Your task to perform on an android device: Go to battery settings Image 0: 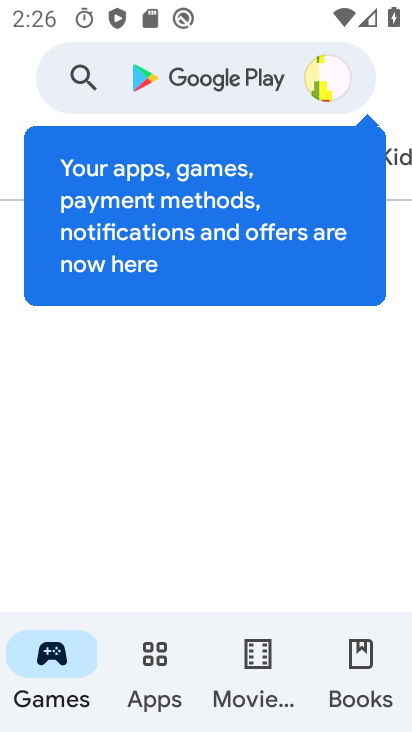
Step 0: press back button
Your task to perform on an android device: Go to battery settings Image 1: 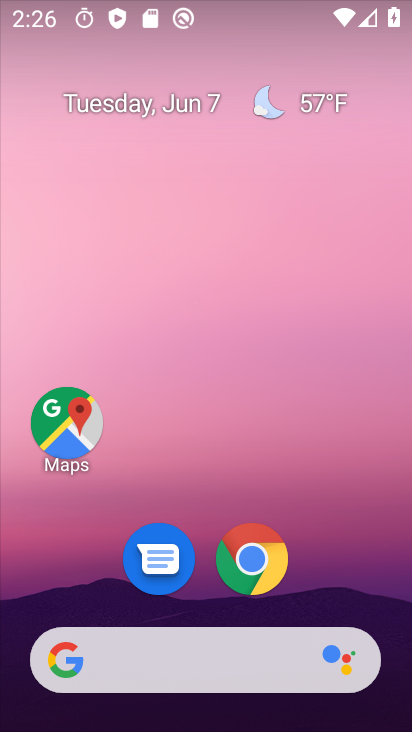
Step 1: drag from (314, 583) to (261, 28)
Your task to perform on an android device: Go to battery settings Image 2: 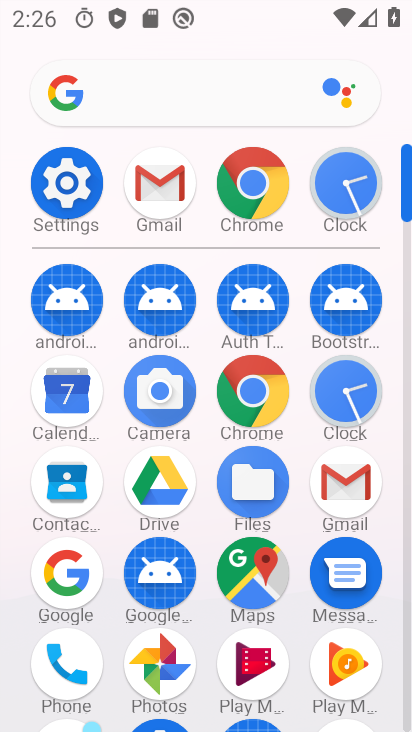
Step 2: click (65, 179)
Your task to perform on an android device: Go to battery settings Image 3: 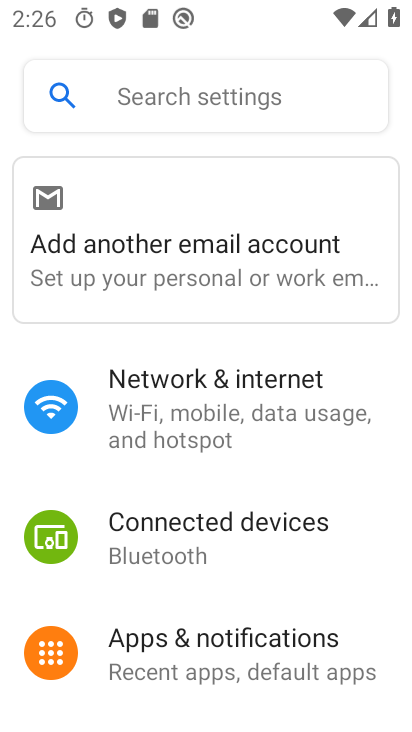
Step 3: drag from (309, 157) to (320, 101)
Your task to perform on an android device: Go to battery settings Image 4: 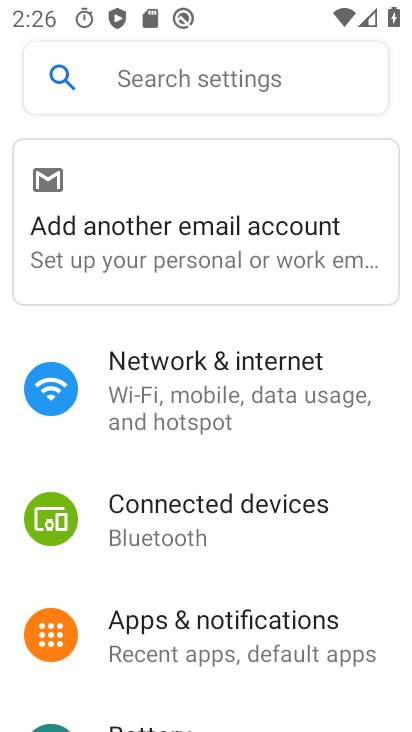
Step 4: drag from (300, 538) to (297, 150)
Your task to perform on an android device: Go to battery settings Image 5: 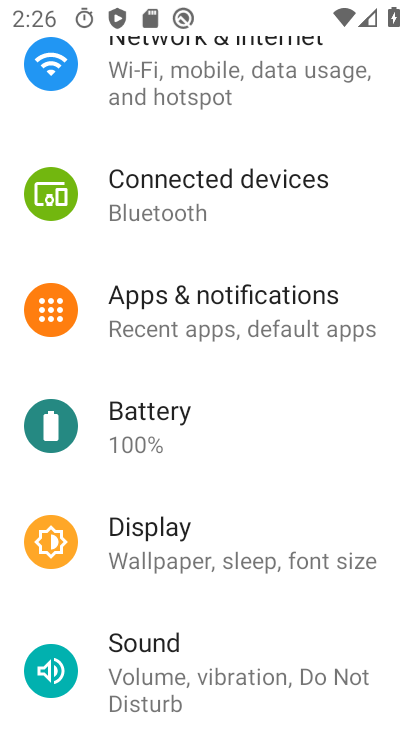
Step 5: drag from (278, 514) to (290, 250)
Your task to perform on an android device: Go to battery settings Image 6: 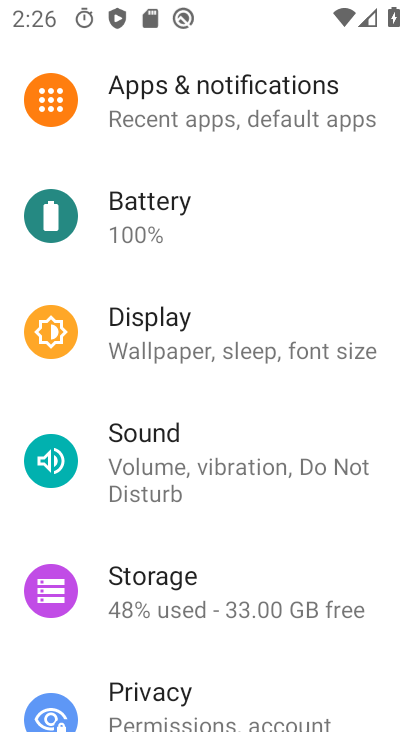
Step 6: click (201, 206)
Your task to perform on an android device: Go to battery settings Image 7: 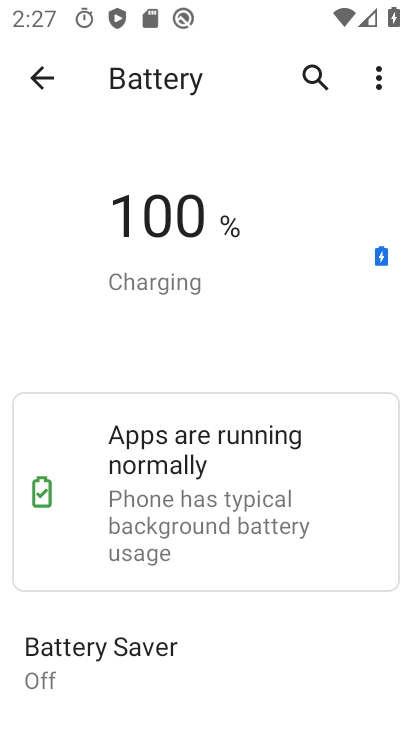
Step 7: task complete